Your task to perform on an android device: turn on translation in the chrome app Image 0: 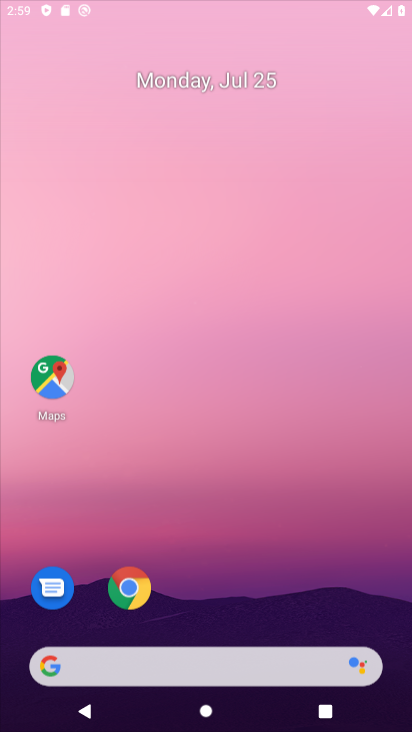
Step 0: drag from (241, 239) to (241, 64)
Your task to perform on an android device: turn on translation in the chrome app Image 1: 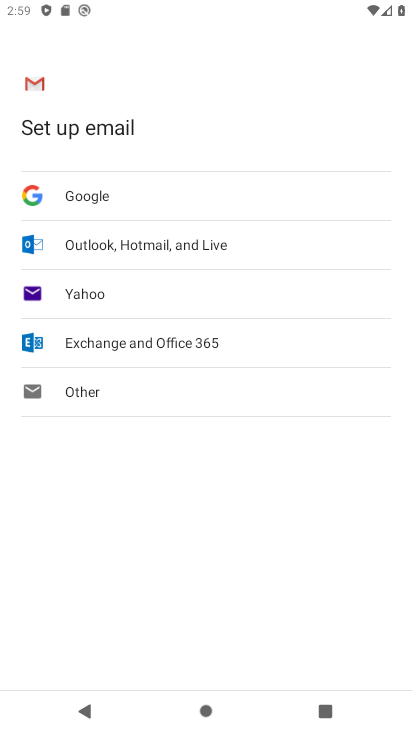
Step 1: press home button
Your task to perform on an android device: turn on translation in the chrome app Image 2: 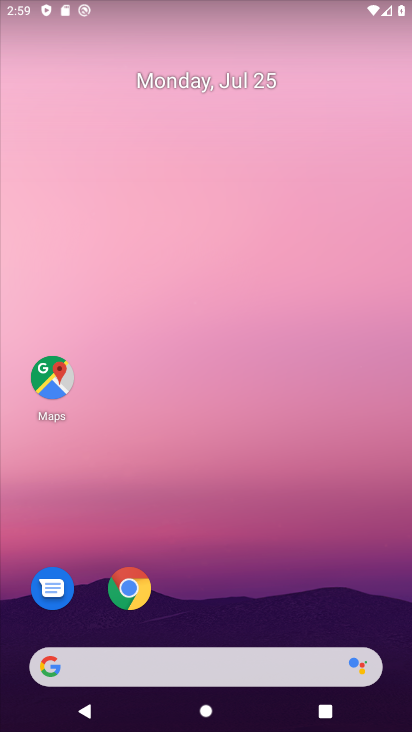
Step 2: drag from (223, 614) to (220, 296)
Your task to perform on an android device: turn on translation in the chrome app Image 3: 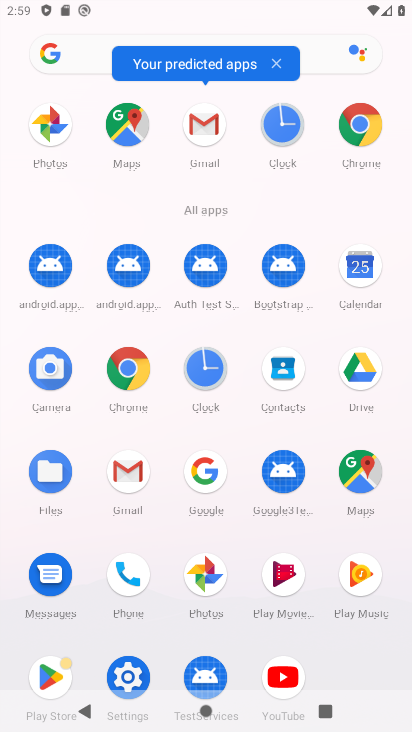
Step 3: click (362, 123)
Your task to perform on an android device: turn on translation in the chrome app Image 4: 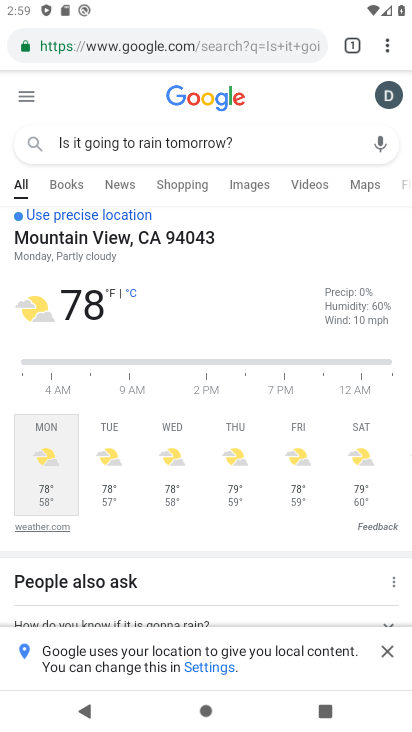
Step 4: click (387, 46)
Your task to perform on an android device: turn on translation in the chrome app Image 5: 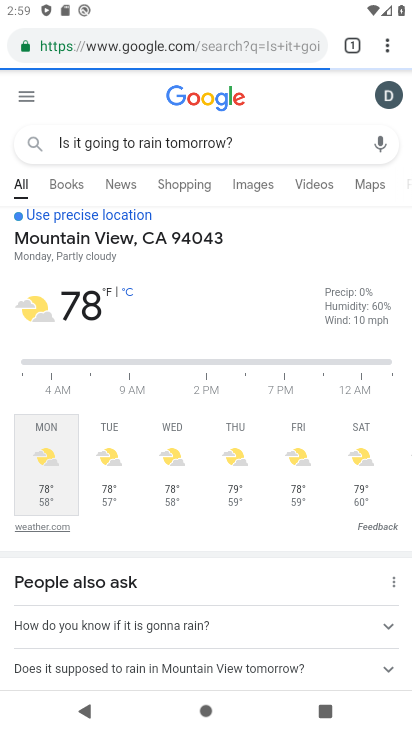
Step 5: click (387, 48)
Your task to perform on an android device: turn on translation in the chrome app Image 6: 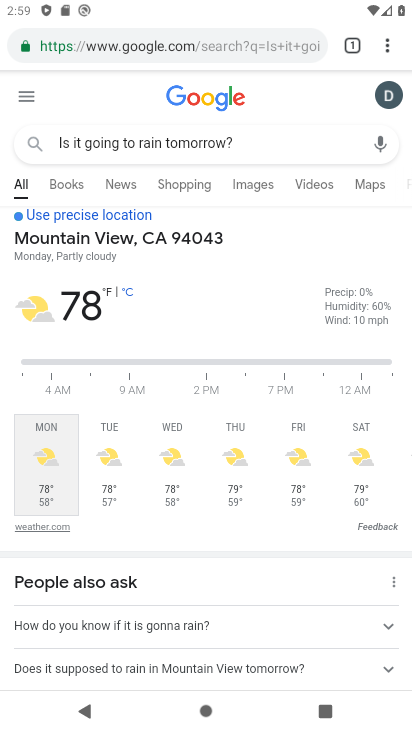
Step 6: click (387, 48)
Your task to perform on an android device: turn on translation in the chrome app Image 7: 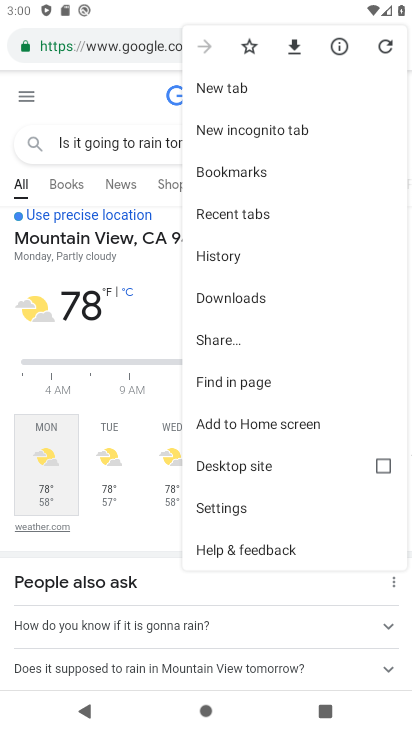
Step 7: click (234, 500)
Your task to perform on an android device: turn on translation in the chrome app Image 8: 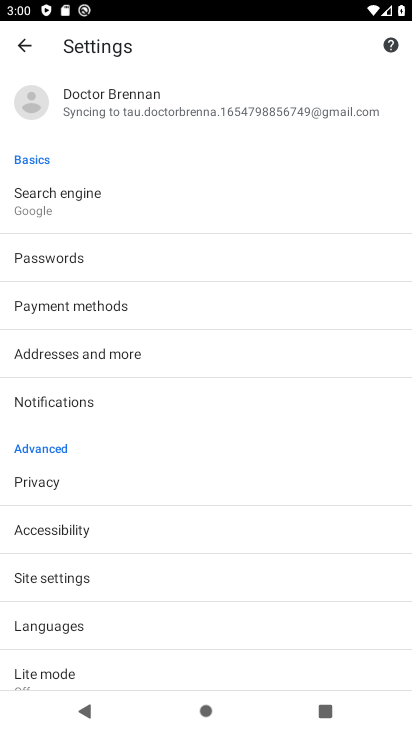
Step 8: click (78, 627)
Your task to perform on an android device: turn on translation in the chrome app Image 9: 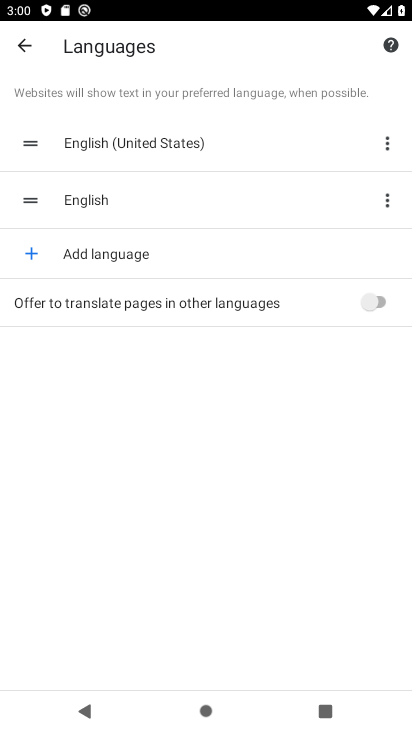
Step 9: click (374, 293)
Your task to perform on an android device: turn on translation in the chrome app Image 10: 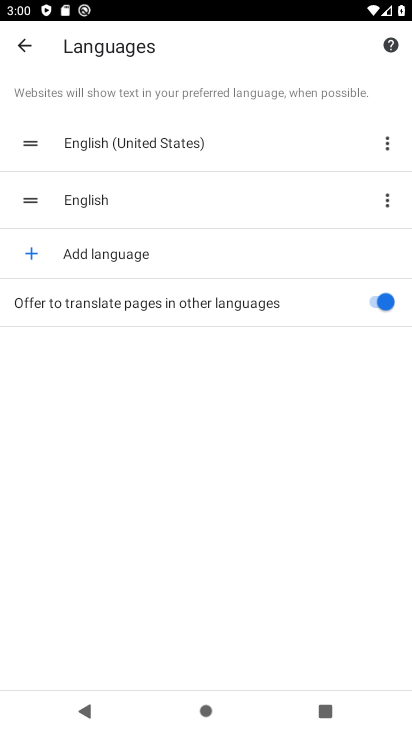
Step 10: task complete